Your task to perform on an android device: find photos in the google photos app Image 0: 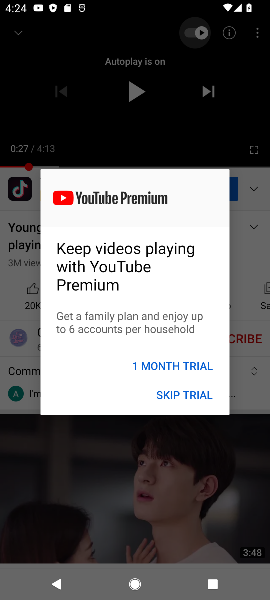
Step 0: press home button
Your task to perform on an android device: find photos in the google photos app Image 1: 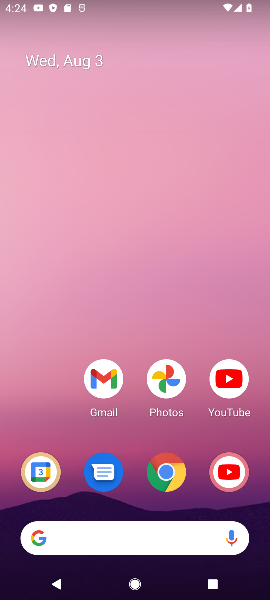
Step 1: drag from (90, 434) to (163, 123)
Your task to perform on an android device: find photos in the google photos app Image 2: 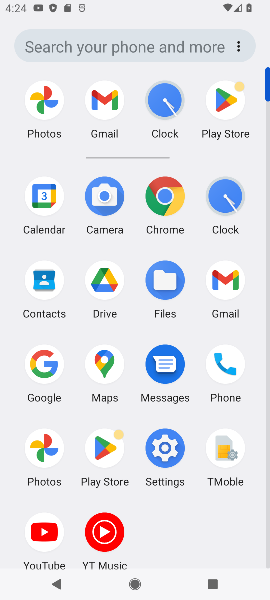
Step 2: click (49, 446)
Your task to perform on an android device: find photos in the google photos app Image 3: 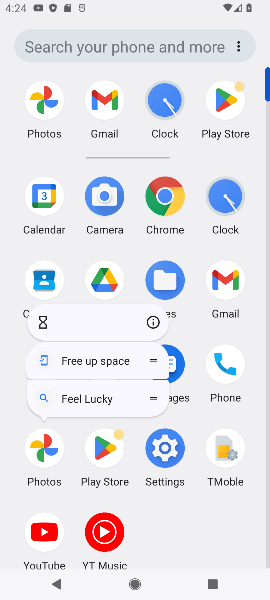
Step 3: click (33, 450)
Your task to perform on an android device: find photos in the google photos app Image 4: 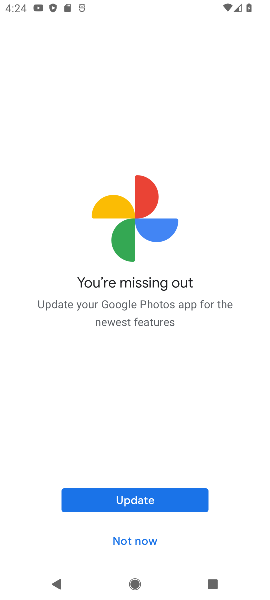
Step 4: click (113, 534)
Your task to perform on an android device: find photos in the google photos app Image 5: 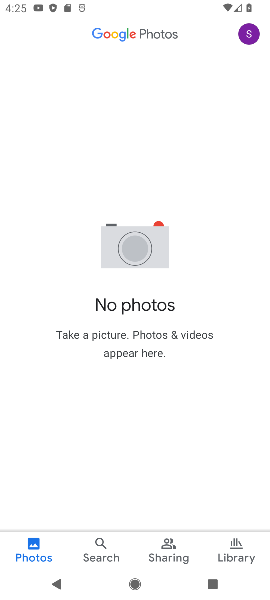
Step 5: task complete